Your task to perform on an android device: set the timer Image 0: 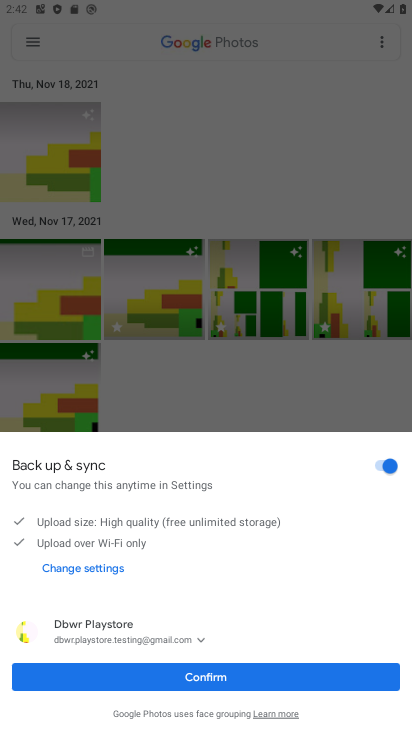
Step 0: press home button
Your task to perform on an android device: set the timer Image 1: 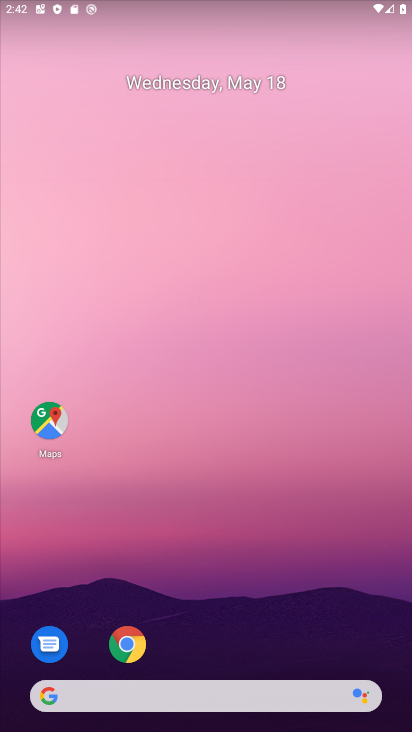
Step 1: drag from (254, 728) to (264, 223)
Your task to perform on an android device: set the timer Image 2: 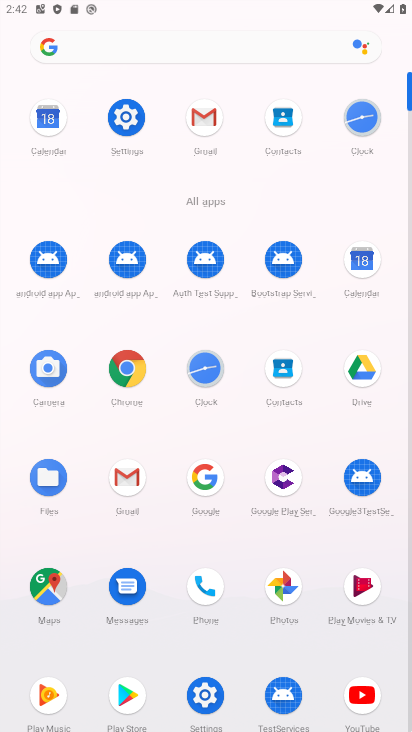
Step 2: click (216, 377)
Your task to perform on an android device: set the timer Image 3: 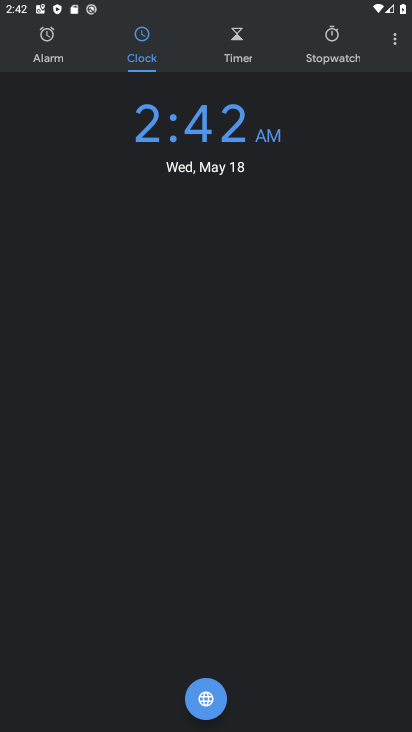
Step 3: click (395, 39)
Your task to perform on an android device: set the timer Image 4: 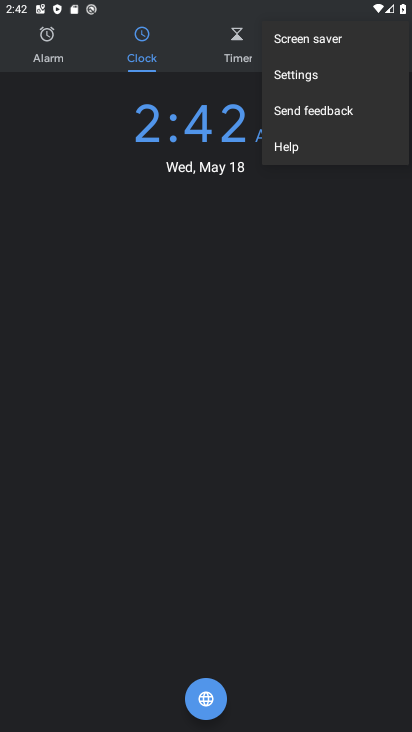
Step 4: click (245, 325)
Your task to perform on an android device: set the timer Image 5: 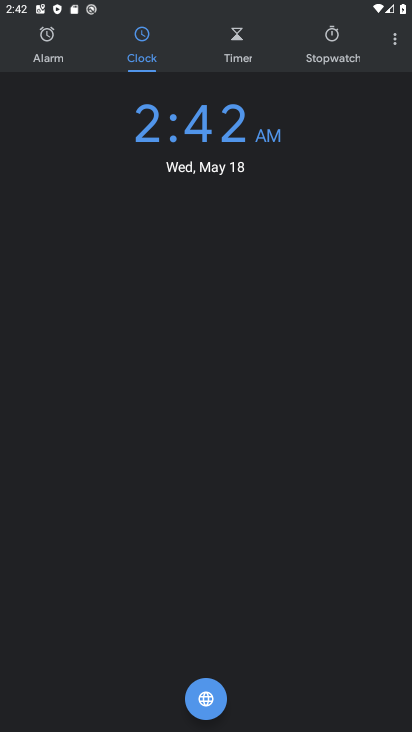
Step 5: click (244, 59)
Your task to perform on an android device: set the timer Image 6: 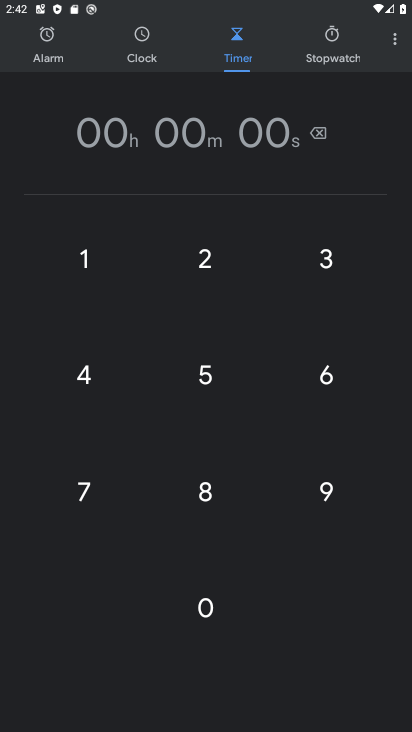
Step 6: click (222, 257)
Your task to perform on an android device: set the timer Image 7: 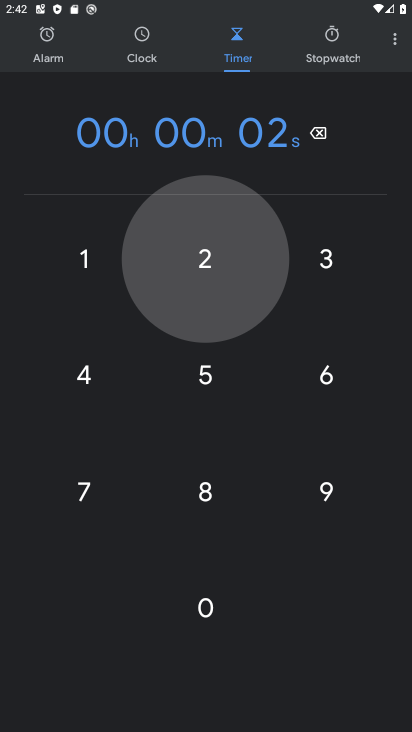
Step 7: click (190, 374)
Your task to perform on an android device: set the timer Image 8: 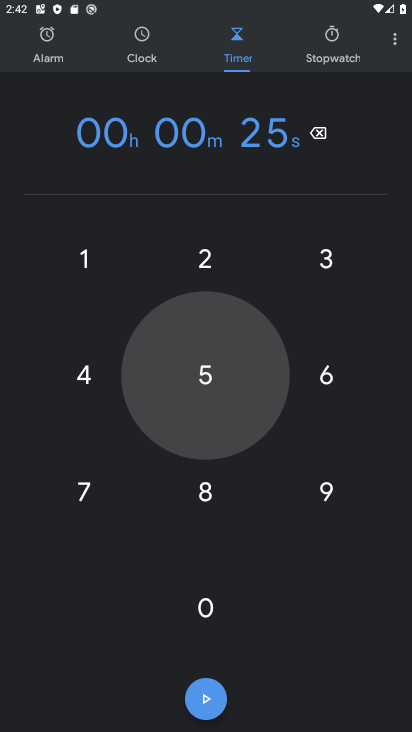
Step 8: click (325, 385)
Your task to perform on an android device: set the timer Image 9: 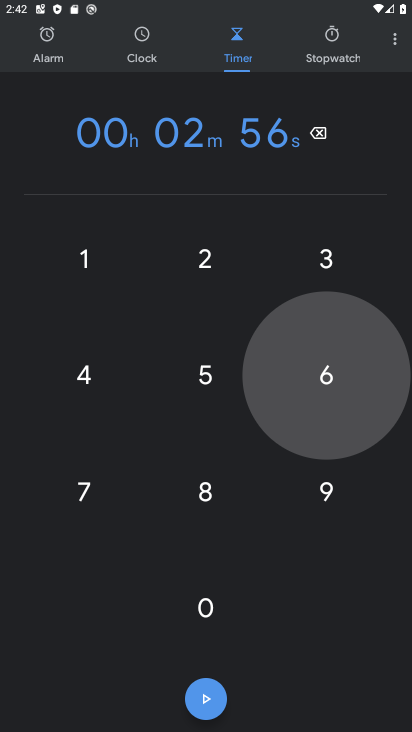
Step 9: click (341, 286)
Your task to perform on an android device: set the timer Image 10: 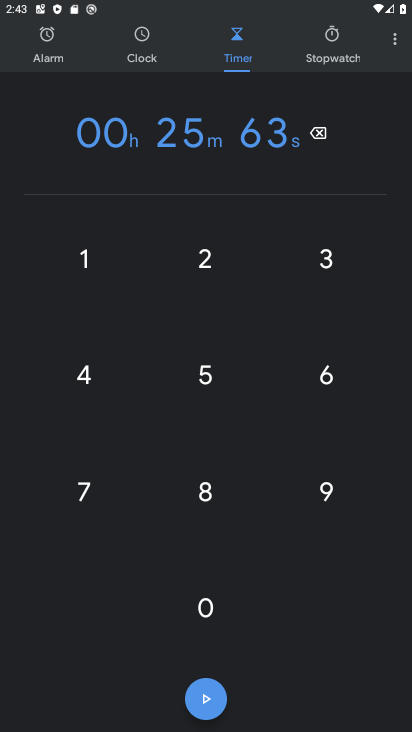
Step 10: task complete